Your task to perform on an android device: make emails show in primary in the gmail app Image 0: 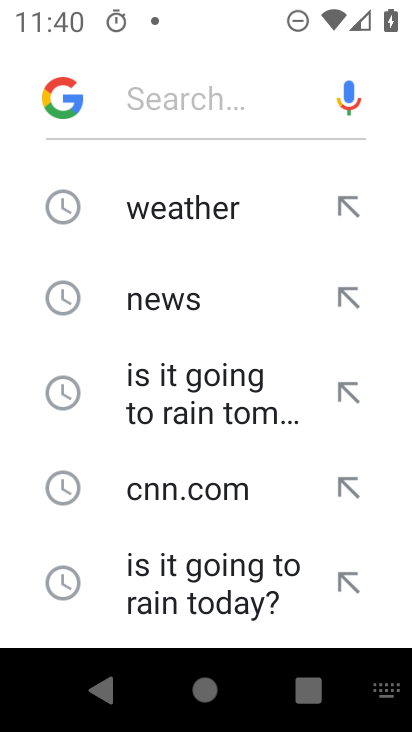
Step 0: press back button
Your task to perform on an android device: make emails show in primary in the gmail app Image 1: 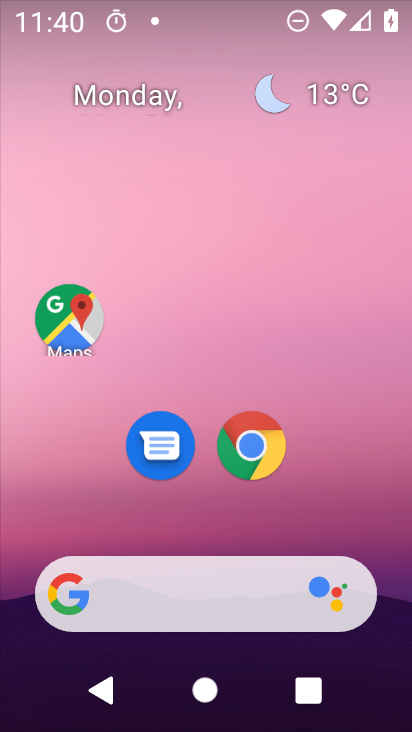
Step 1: drag from (178, 545) to (269, 22)
Your task to perform on an android device: make emails show in primary in the gmail app Image 2: 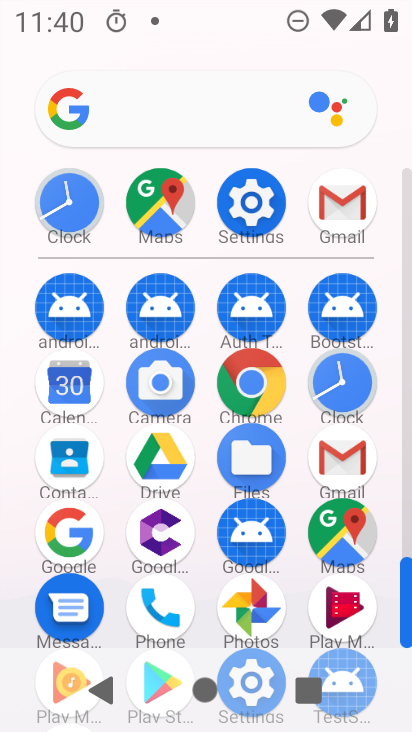
Step 2: click (341, 200)
Your task to perform on an android device: make emails show in primary in the gmail app Image 3: 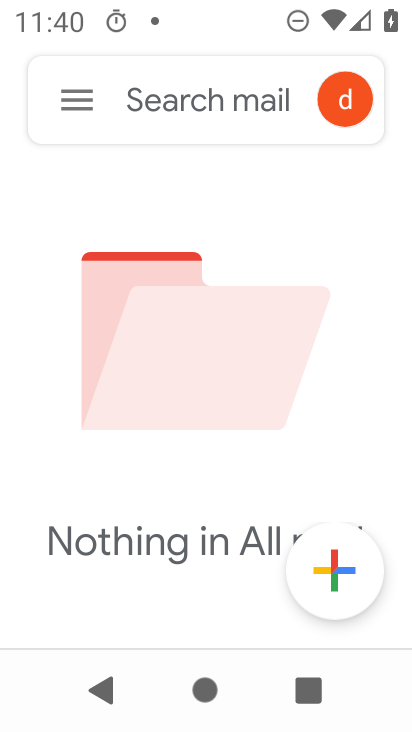
Step 3: click (65, 98)
Your task to perform on an android device: make emails show in primary in the gmail app Image 4: 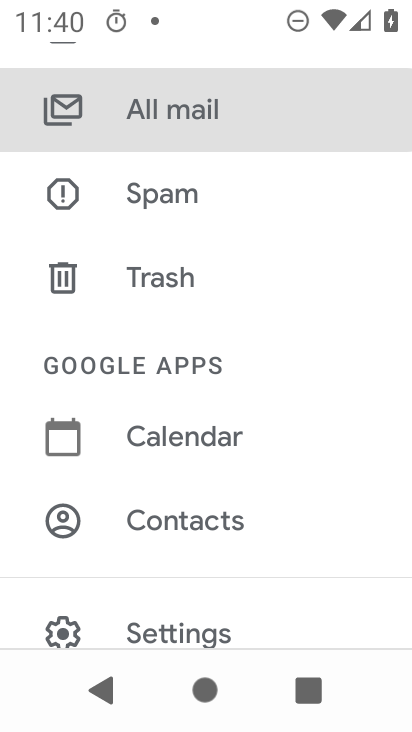
Step 4: click (170, 638)
Your task to perform on an android device: make emails show in primary in the gmail app Image 5: 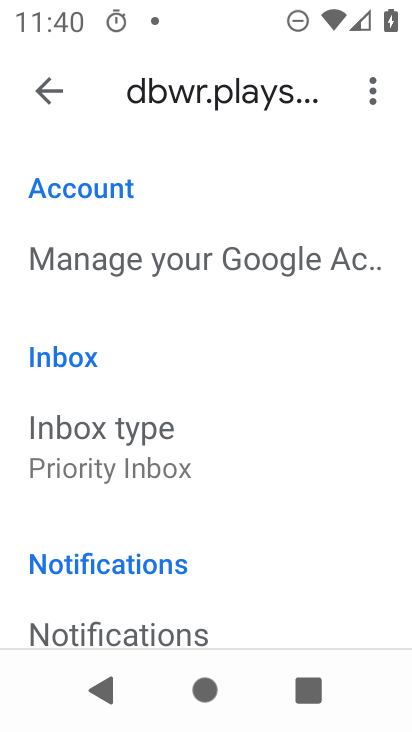
Step 5: task complete